Your task to perform on an android device: clear history in the chrome app Image 0: 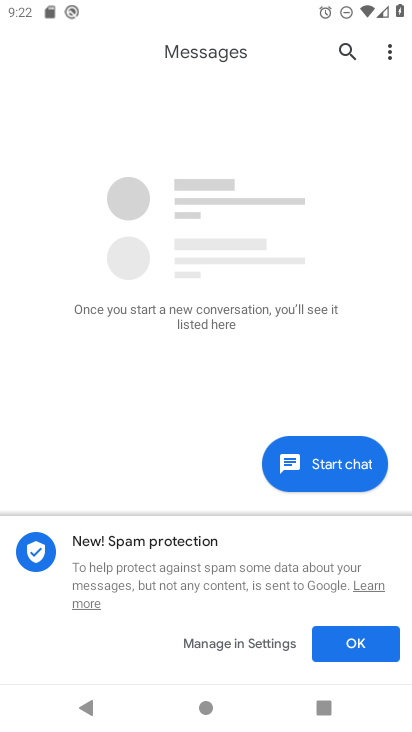
Step 0: drag from (322, 550) to (230, 143)
Your task to perform on an android device: clear history in the chrome app Image 1: 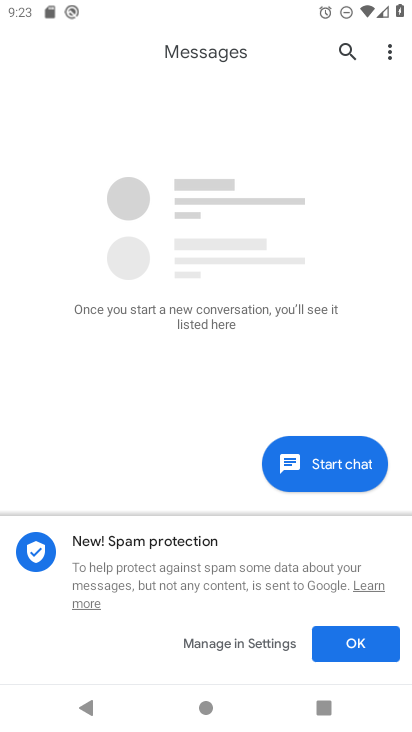
Step 1: press home button
Your task to perform on an android device: clear history in the chrome app Image 2: 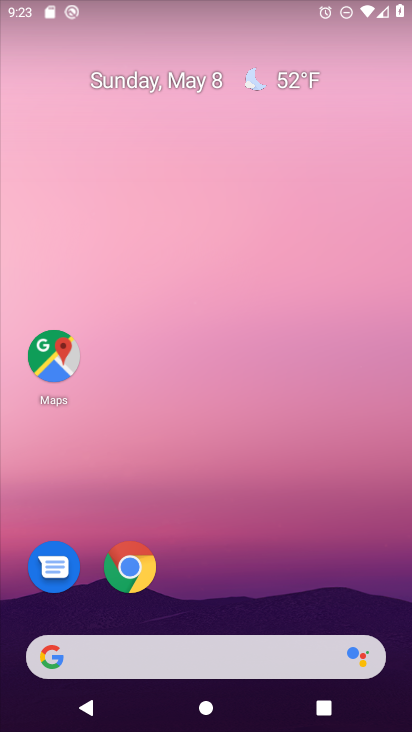
Step 2: drag from (202, 614) to (161, 80)
Your task to perform on an android device: clear history in the chrome app Image 3: 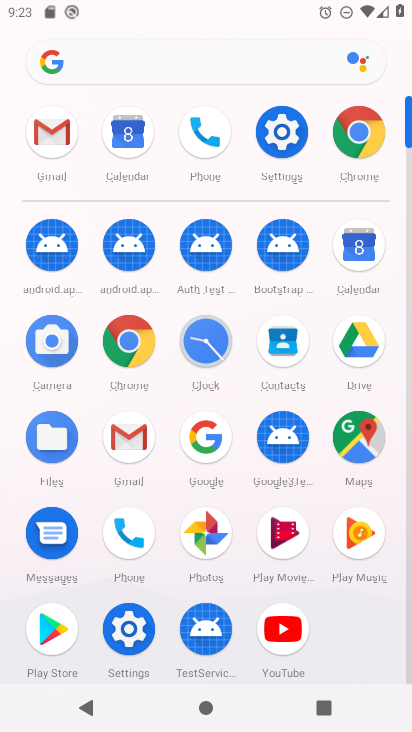
Step 3: click (362, 119)
Your task to perform on an android device: clear history in the chrome app Image 4: 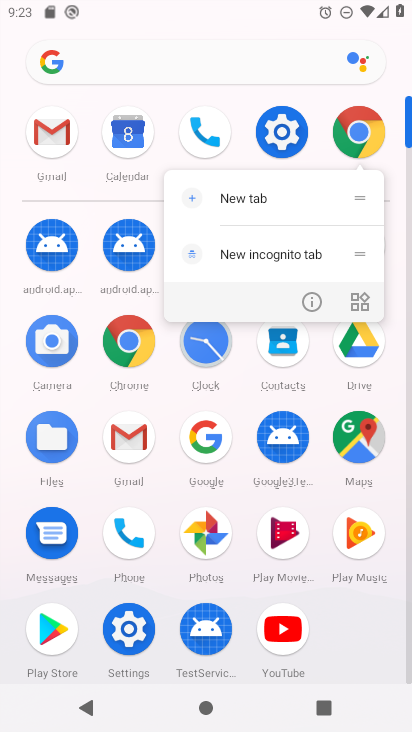
Step 4: click (363, 119)
Your task to perform on an android device: clear history in the chrome app Image 5: 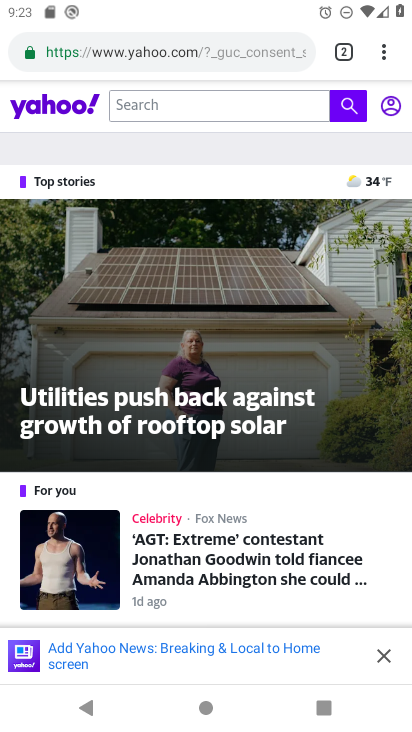
Step 5: drag from (378, 54) to (198, 299)
Your task to perform on an android device: clear history in the chrome app Image 6: 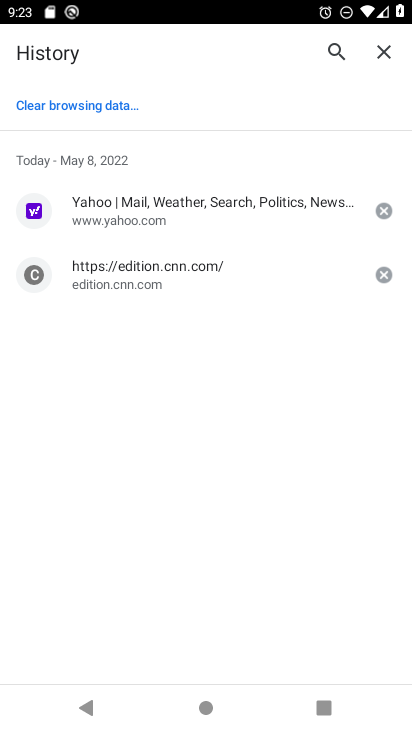
Step 6: click (30, 107)
Your task to perform on an android device: clear history in the chrome app Image 7: 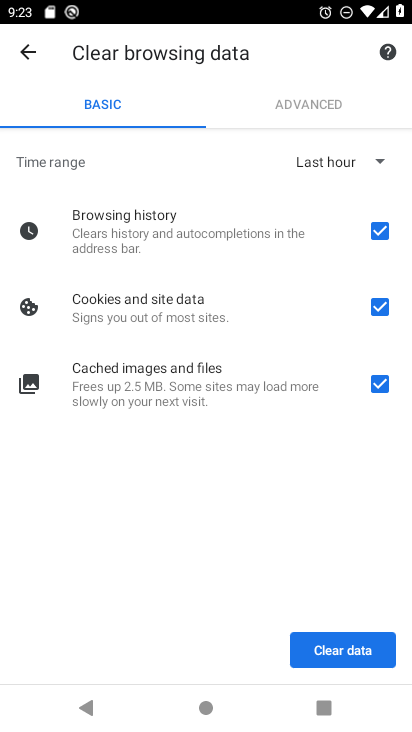
Step 7: click (342, 659)
Your task to perform on an android device: clear history in the chrome app Image 8: 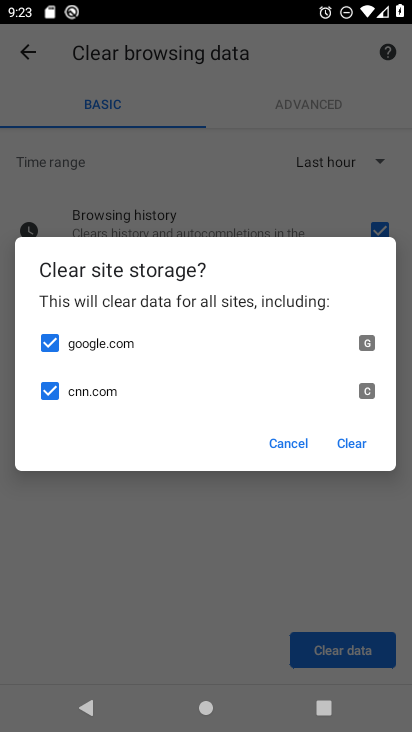
Step 8: click (355, 441)
Your task to perform on an android device: clear history in the chrome app Image 9: 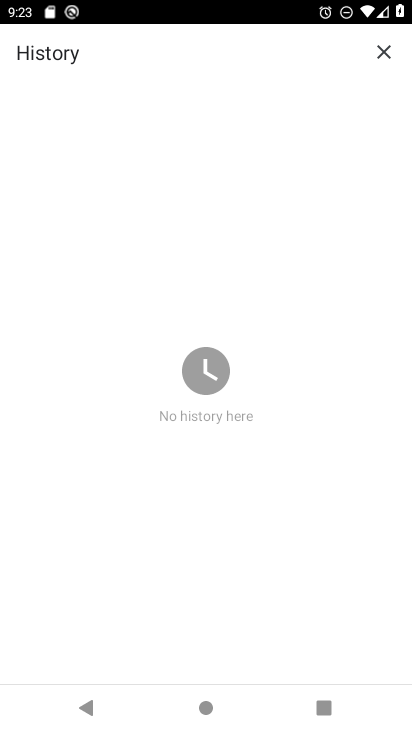
Step 9: task complete